Your task to perform on an android device: Open Chrome and go to settings Image 0: 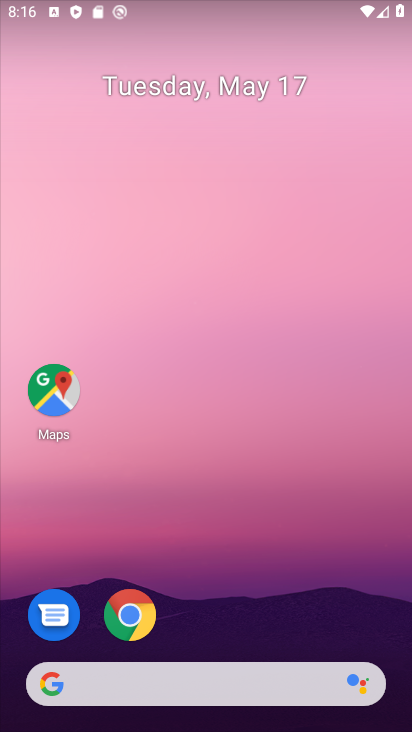
Step 0: click (128, 615)
Your task to perform on an android device: Open Chrome and go to settings Image 1: 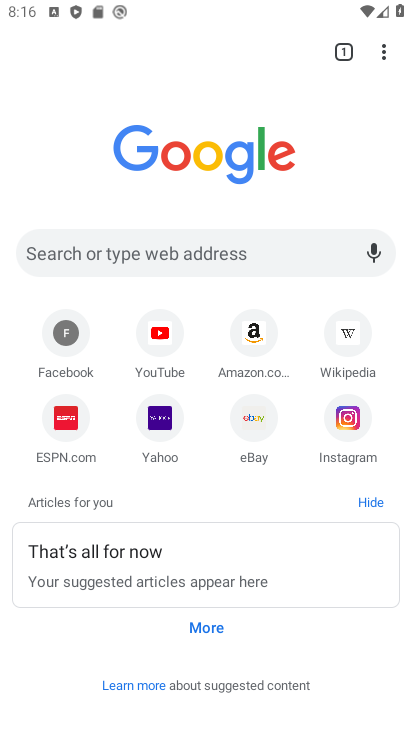
Step 1: click (382, 55)
Your task to perform on an android device: Open Chrome and go to settings Image 2: 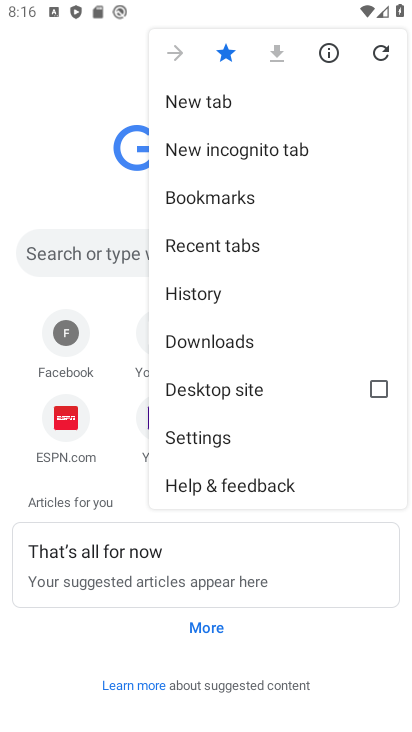
Step 2: click (219, 432)
Your task to perform on an android device: Open Chrome and go to settings Image 3: 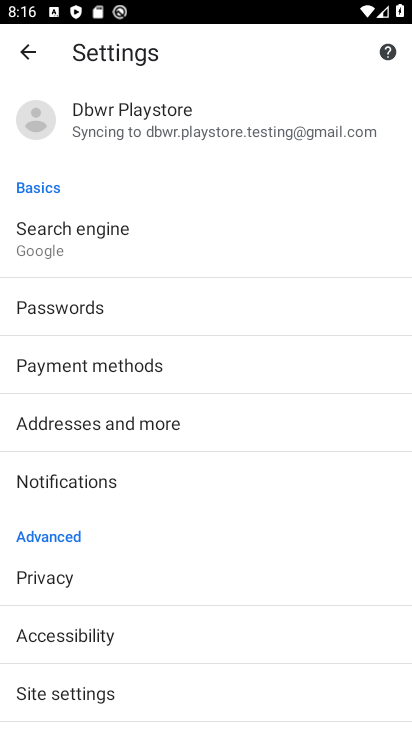
Step 3: task complete